Your task to perform on an android device: Clear all items from cart on bestbuy. Search for "bose quietcomfort 35" on bestbuy, select the first entry, add it to the cart, then select checkout. Image 0: 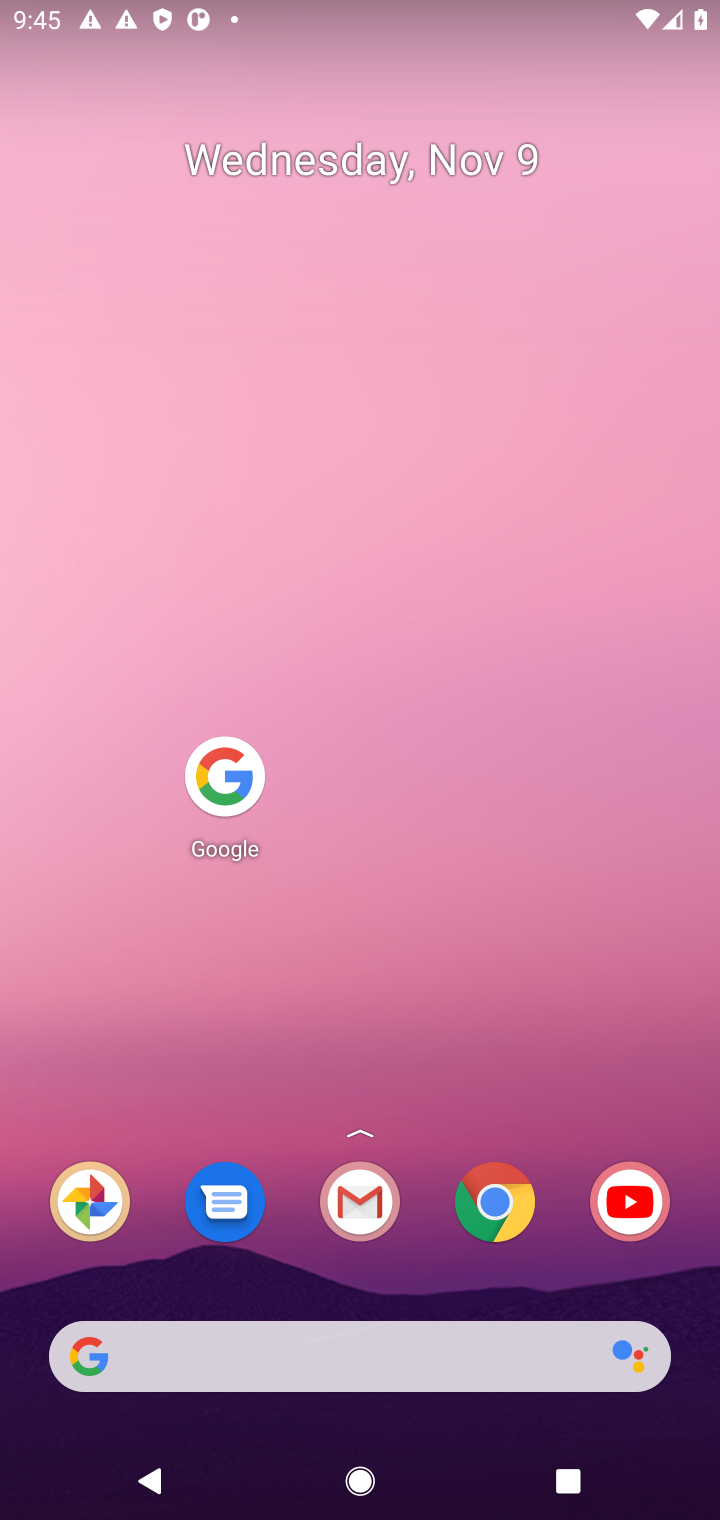
Step 0: click (217, 762)
Your task to perform on an android device: Clear all items from cart on bestbuy. Search for "bose quietcomfort 35" on bestbuy, select the first entry, add it to the cart, then select checkout. Image 1: 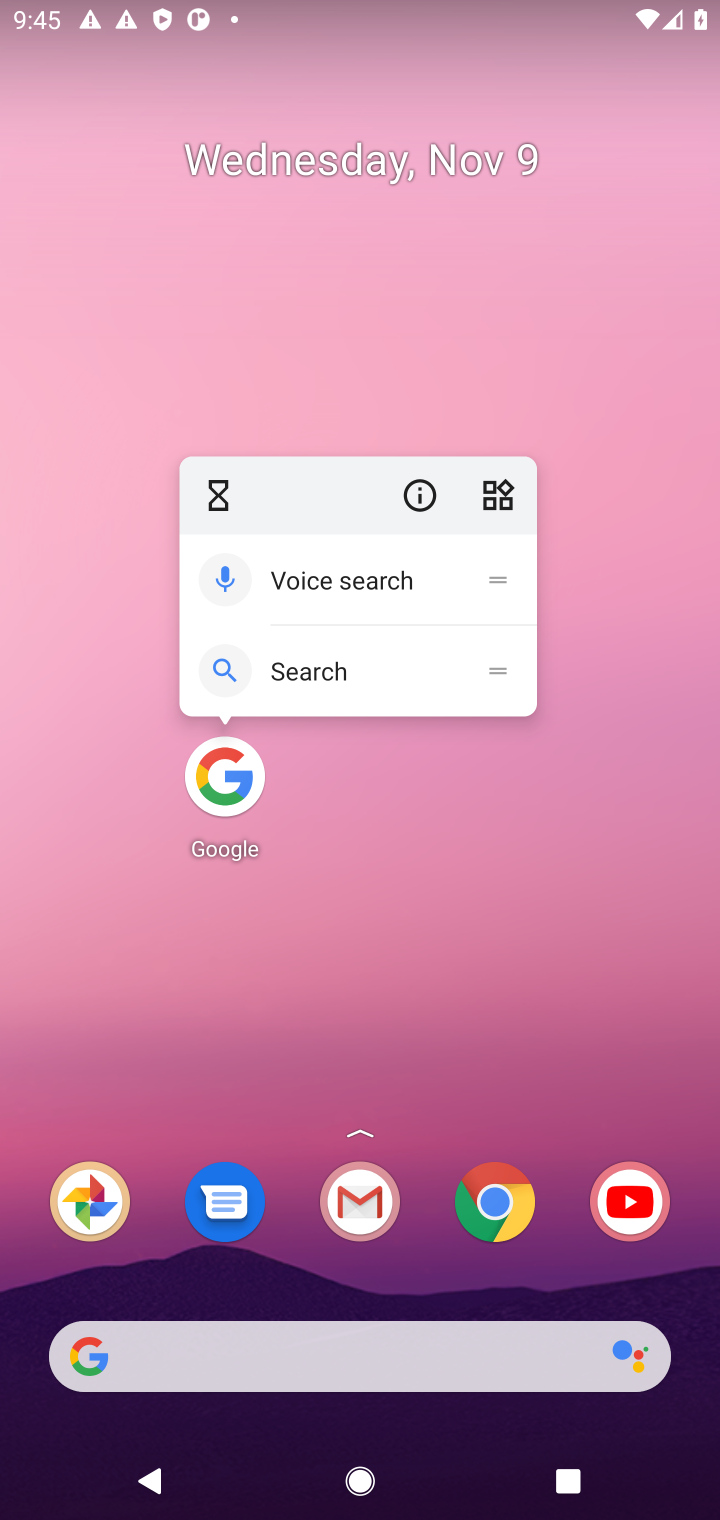
Step 1: click (223, 772)
Your task to perform on an android device: Clear all items from cart on bestbuy. Search for "bose quietcomfort 35" on bestbuy, select the first entry, add it to the cart, then select checkout. Image 2: 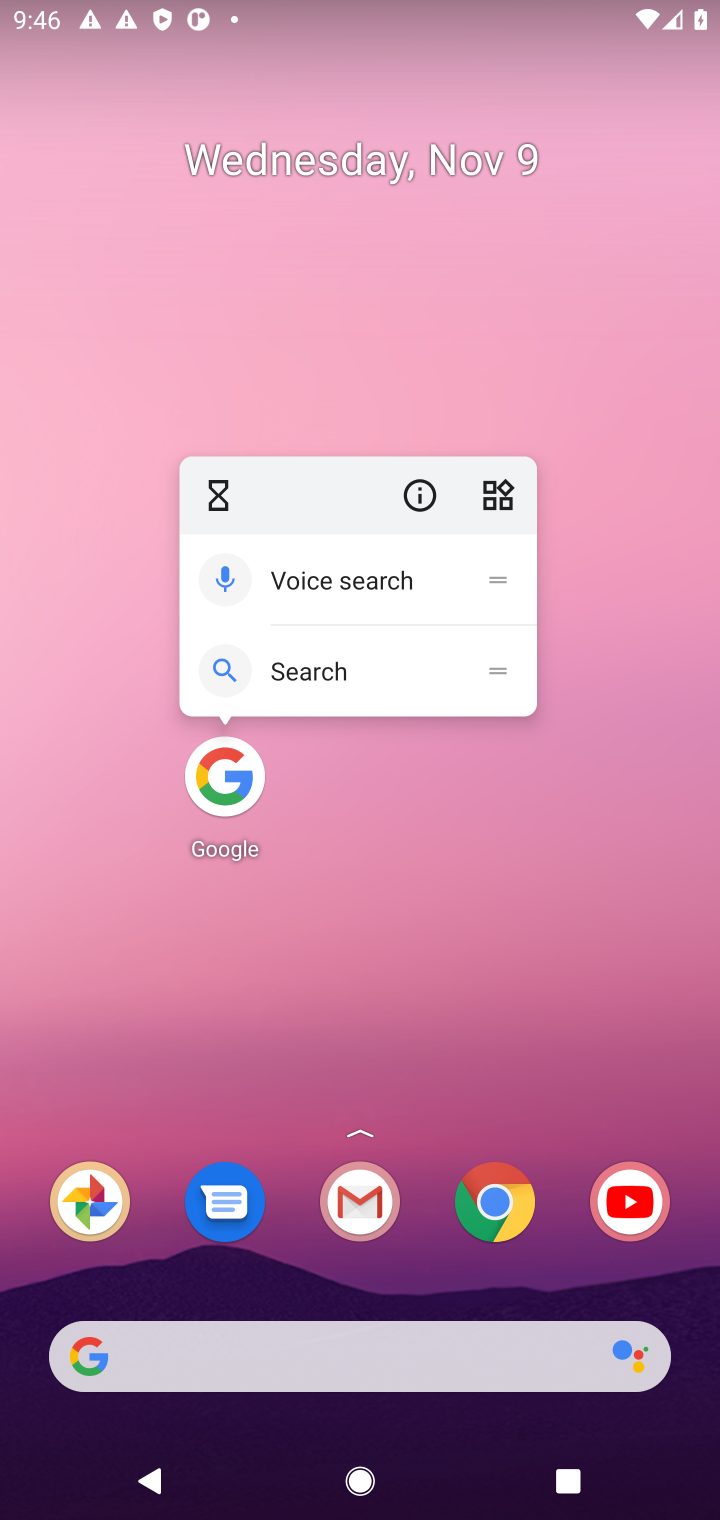
Step 2: click (223, 774)
Your task to perform on an android device: Clear all items from cart on bestbuy. Search for "bose quietcomfort 35" on bestbuy, select the first entry, add it to the cart, then select checkout. Image 3: 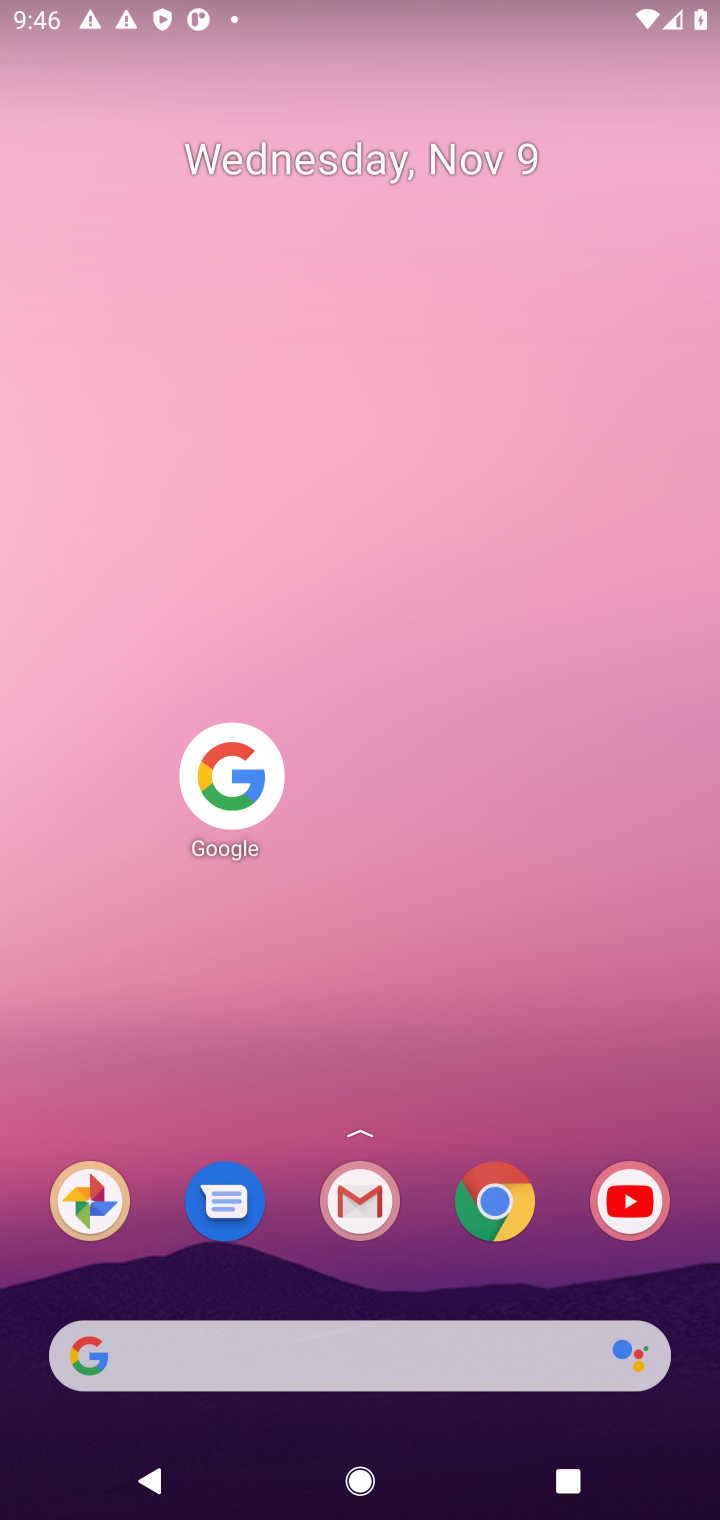
Step 3: click (223, 774)
Your task to perform on an android device: Clear all items from cart on bestbuy. Search for "bose quietcomfort 35" on bestbuy, select the first entry, add it to the cart, then select checkout. Image 4: 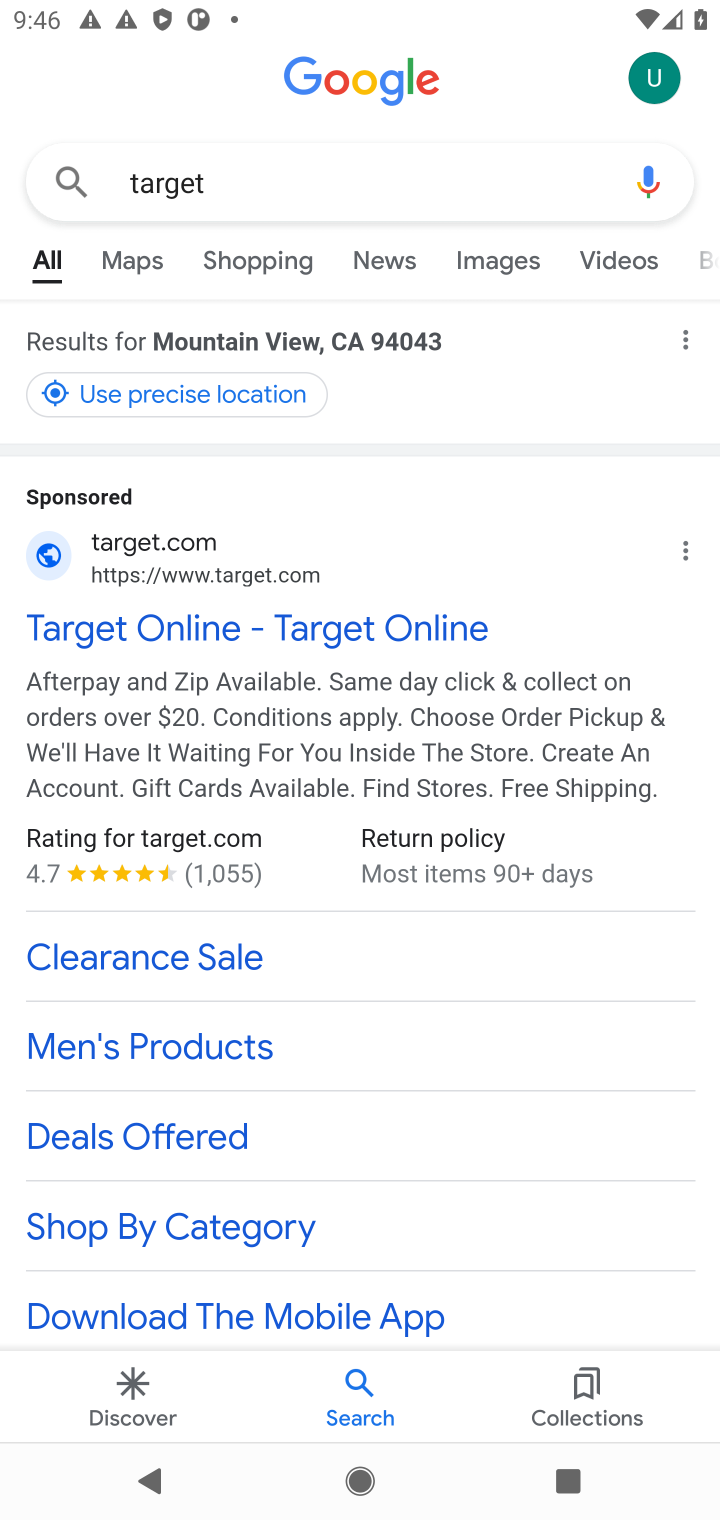
Step 4: click (298, 187)
Your task to perform on an android device: Clear all items from cart on bestbuy. Search for "bose quietcomfort 35" on bestbuy, select the first entry, add it to the cart, then select checkout. Image 5: 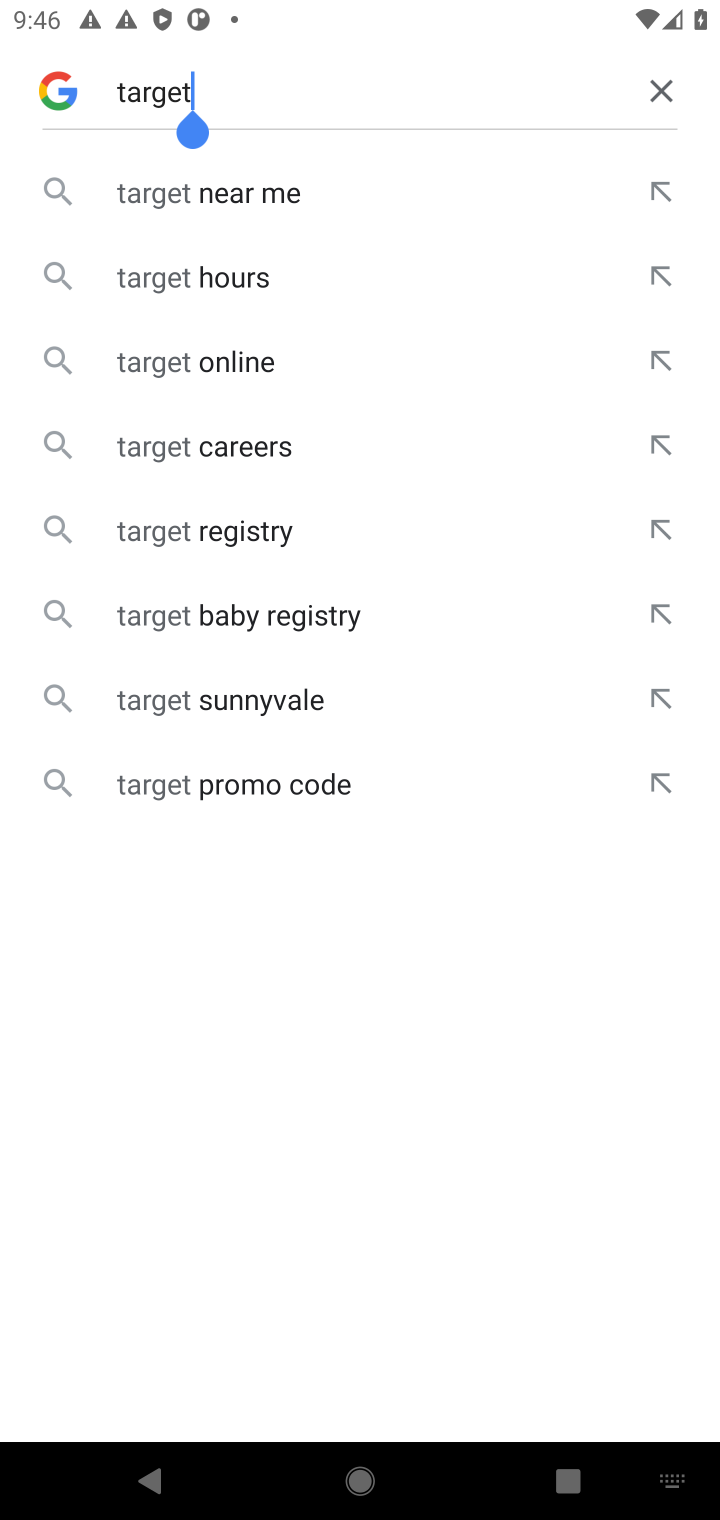
Step 5: click (658, 88)
Your task to perform on an android device: Clear all items from cart on bestbuy. Search for "bose quietcomfort 35" on bestbuy, select the first entry, add it to the cart, then select checkout. Image 6: 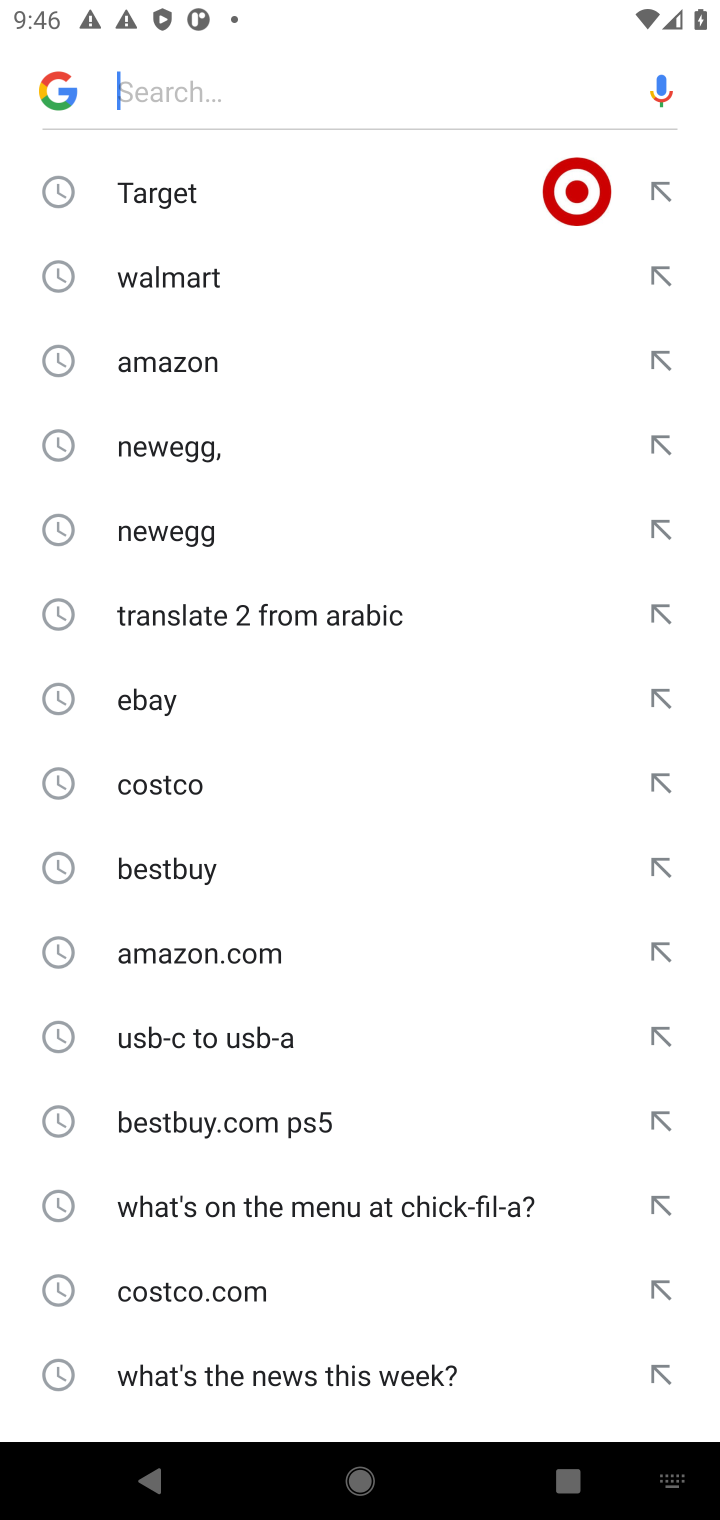
Step 6: click (168, 856)
Your task to perform on an android device: Clear all items from cart on bestbuy. Search for "bose quietcomfort 35" on bestbuy, select the first entry, add it to the cart, then select checkout. Image 7: 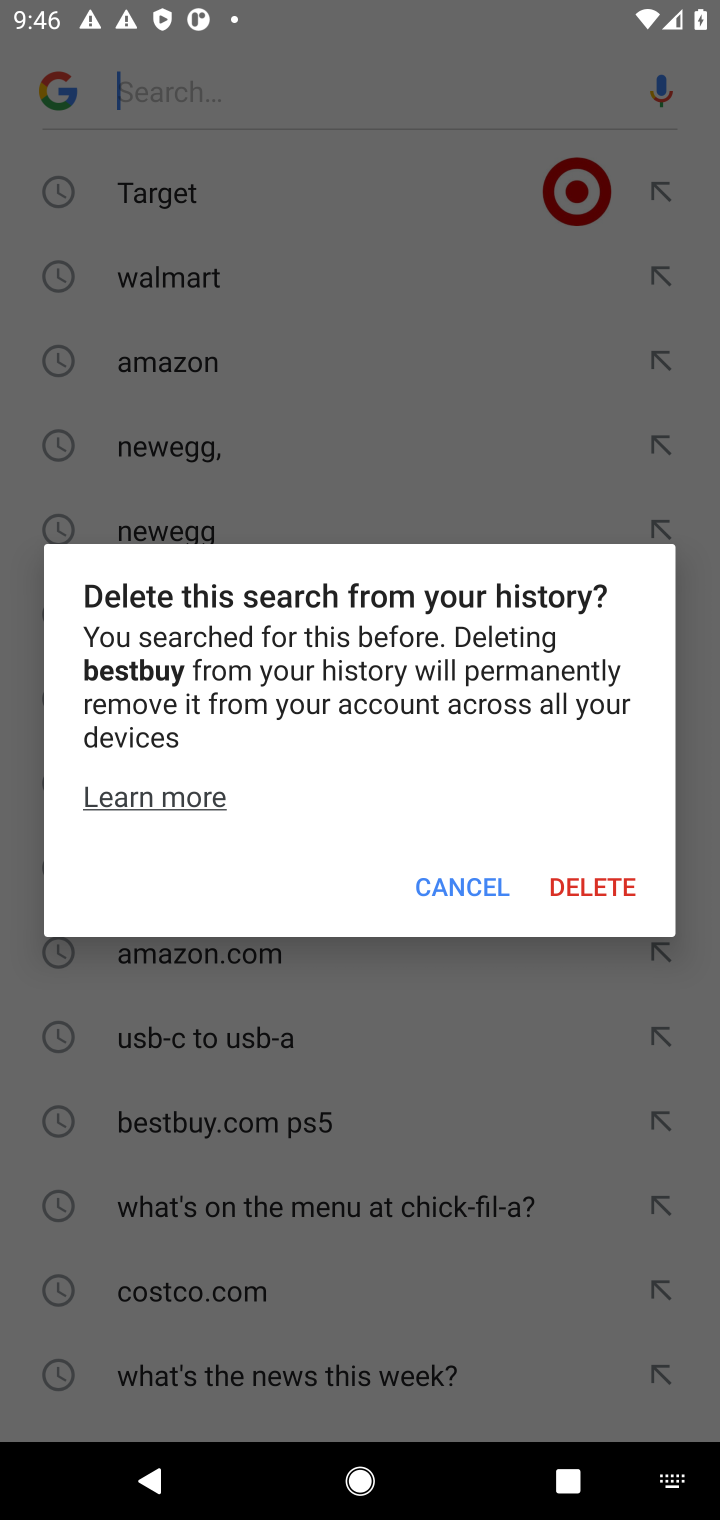
Step 7: click (450, 875)
Your task to perform on an android device: Clear all items from cart on bestbuy. Search for "bose quietcomfort 35" on bestbuy, select the first entry, add it to the cart, then select checkout. Image 8: 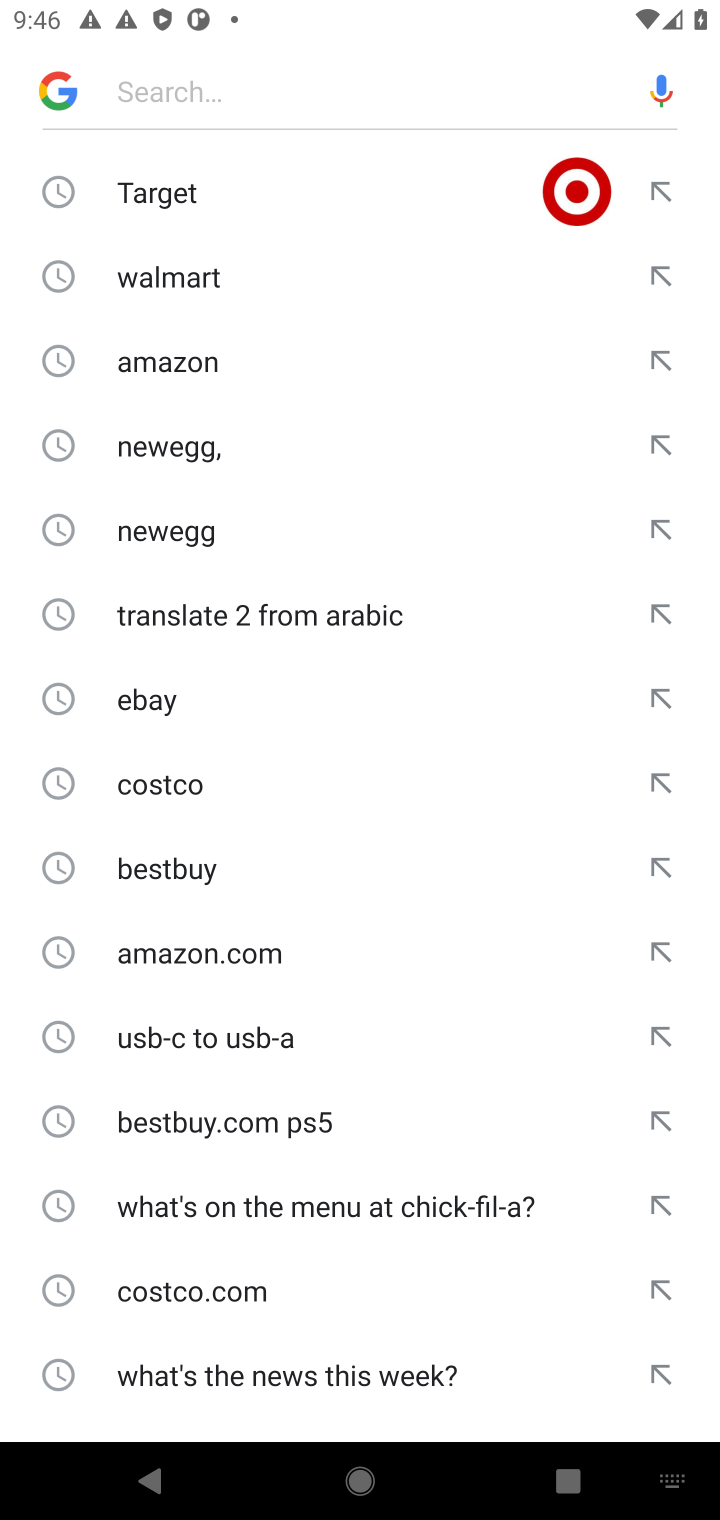
Step 8: click (151, 868)
Your task to perform on an android device: Clear all items from cart on bestbuy. Search for "bose quietcomfort 35" on bestbuy, select the first entry, add it to the cart, then select checkout. Image 9: 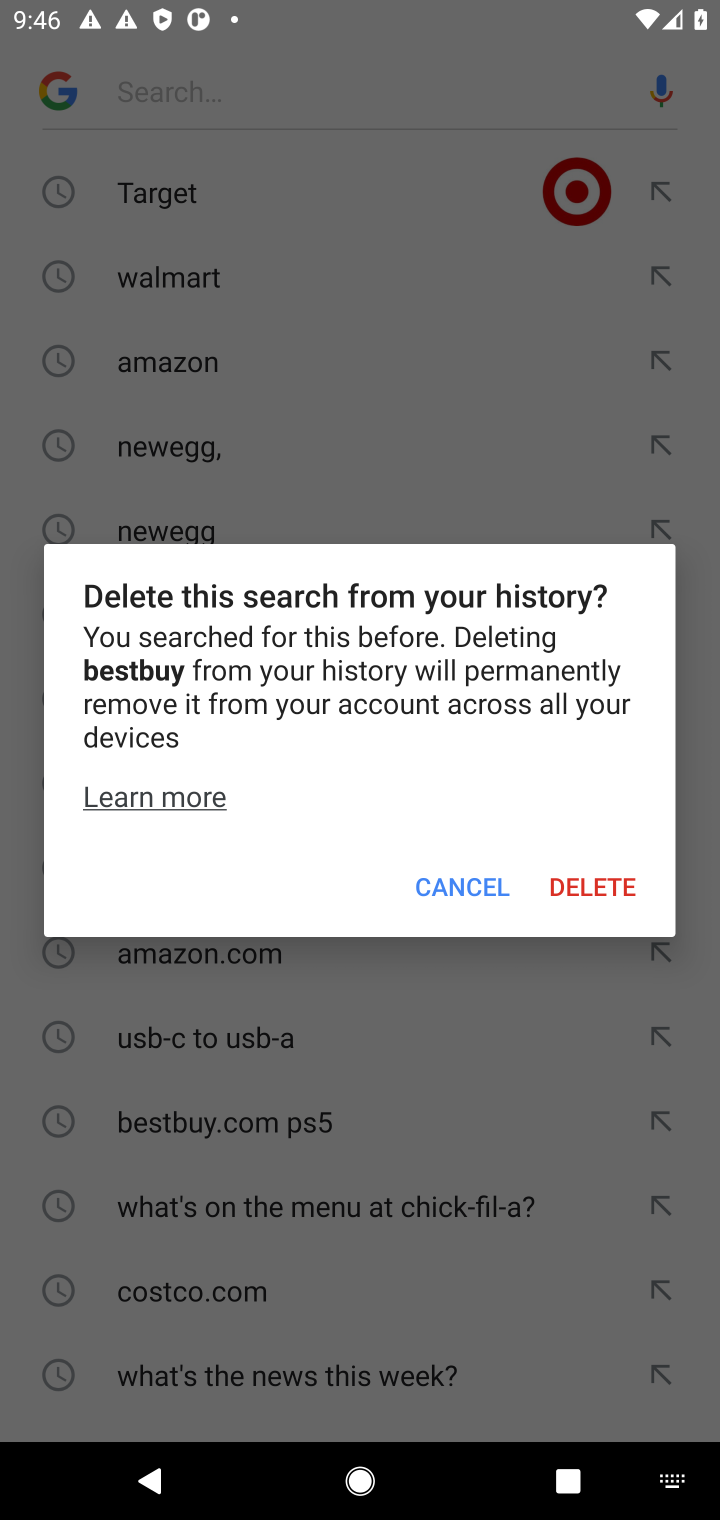
Step 9: click (424, 896)
Your task to perform on an android device: Clear all items from cart on bestbuy. Search for "bose quietcomfort 35" on bestbuy, select the first entry, add it to the cart, then select checkout. Image 10: 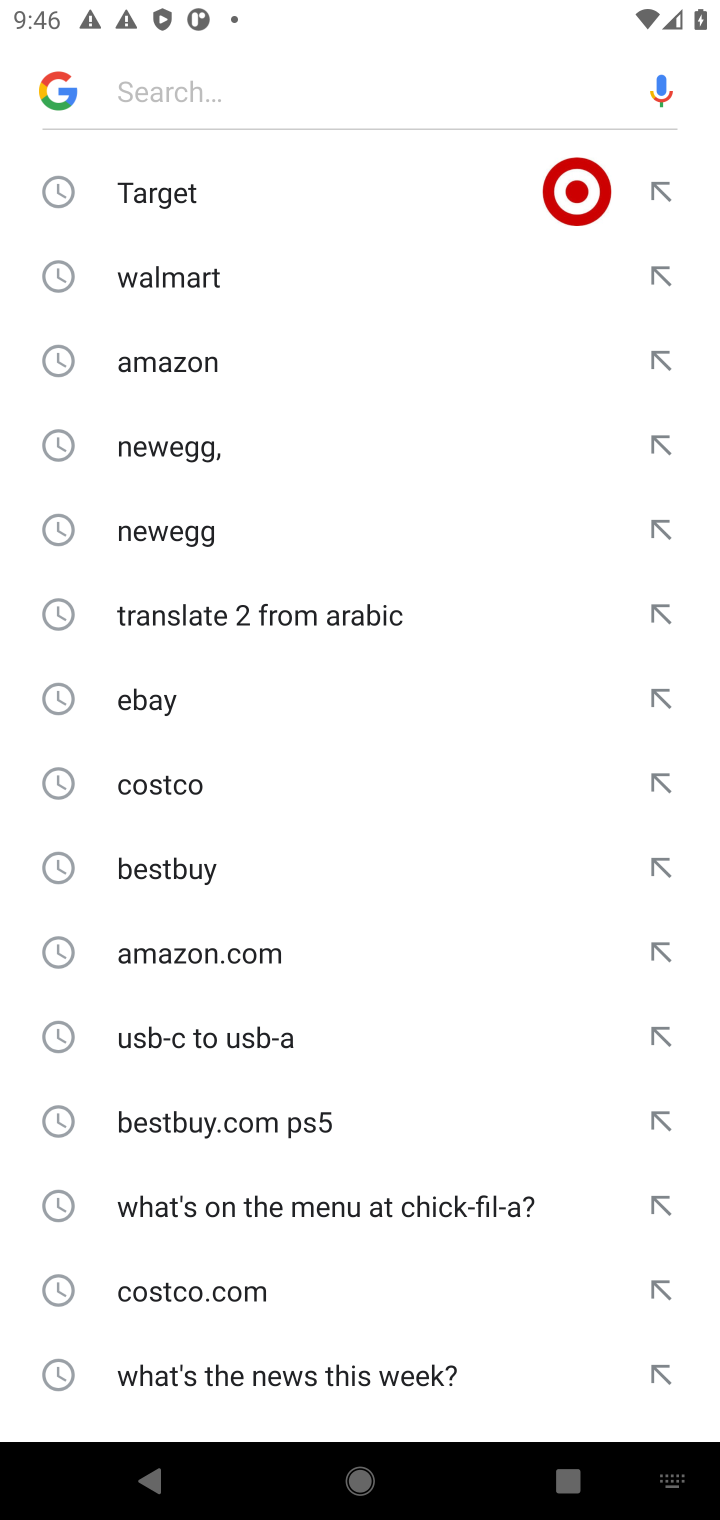
Step 10: click (115, 858)
Your task to perform on an android device: Clear all items from cart on bestbuy. Search for "bose quietcomfort 35" on bestbuy, select the first entry, add it to the cart, then select checkout. Image 11: 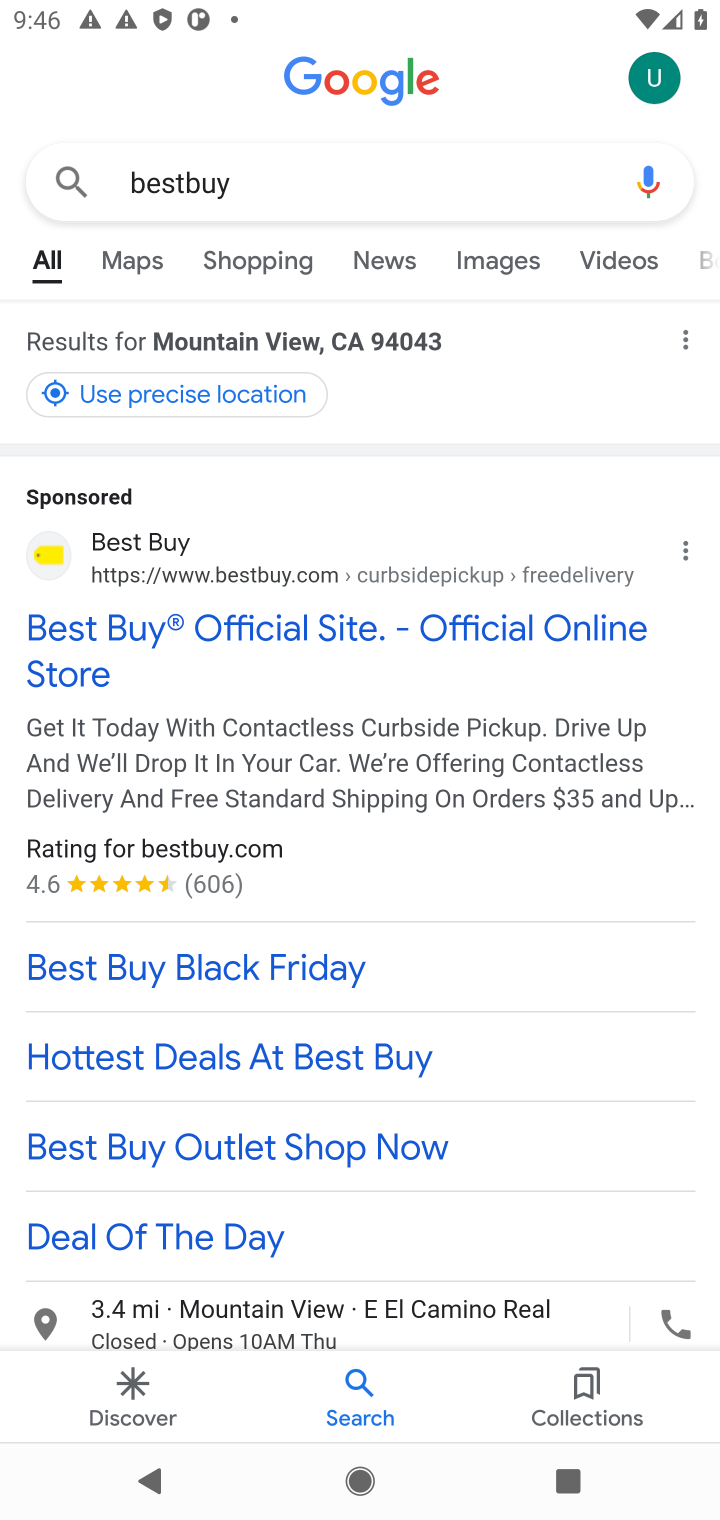
Step 11: click (232, 627)
Your task to perform on an android device: Clear all items from cart on bestbuy. Search for "bose quietcomfort 35" on bestbuy, select the first entry, add it to the cart, then select checkout. Image 12: 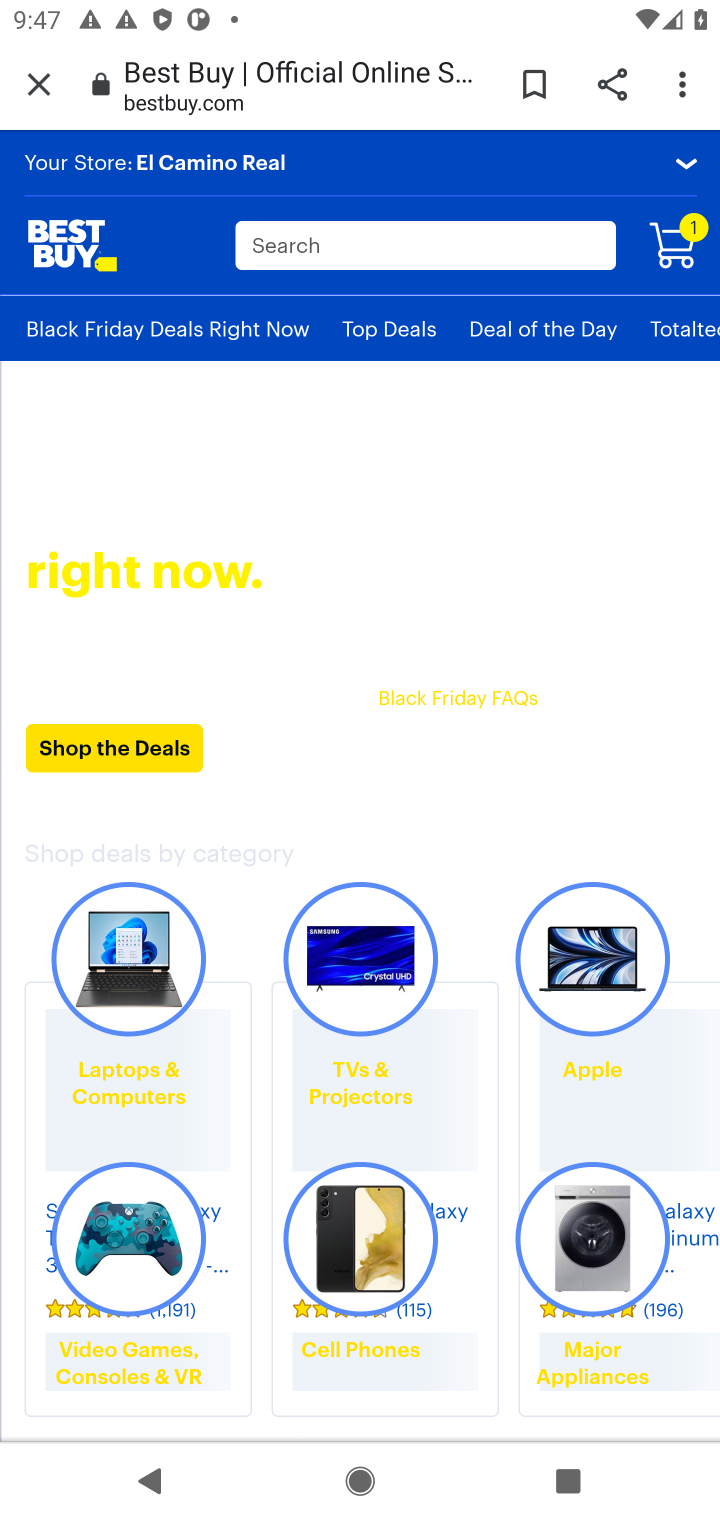
Step 12: click (437, 245)
Your task to perform on an android device: Clear all items from cart on bestbuy. Search for "bose quietcomfort 35" on bestbuy, select the first entry, add it to the cart, then select checkout. Image 13: 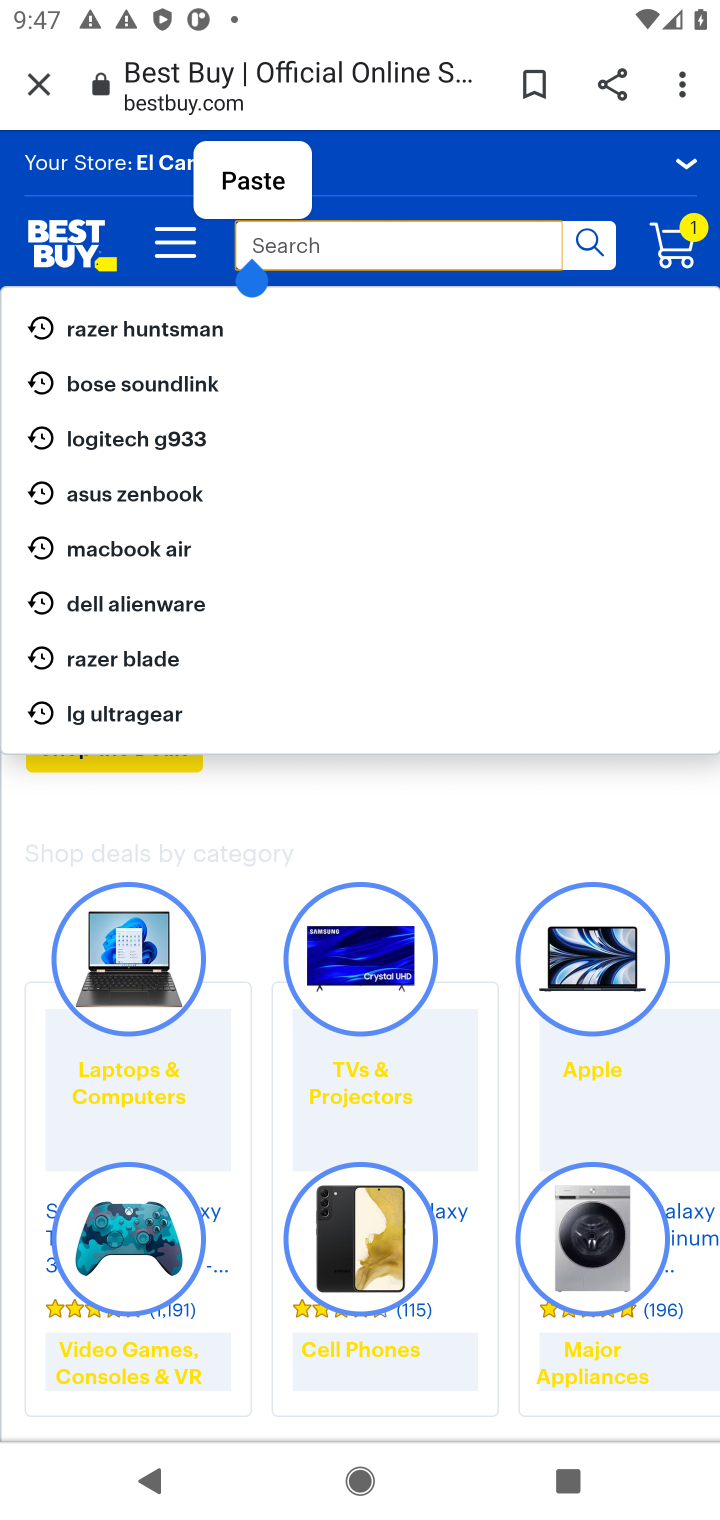
Step 13: click (437, 243)
Your task to perform on an android device: Clear all items from cart on bestbuy. Search for "bose quietcomfort 35" on bestbuy, select the first entry, add it to the cart, then select checkout. Image 14: 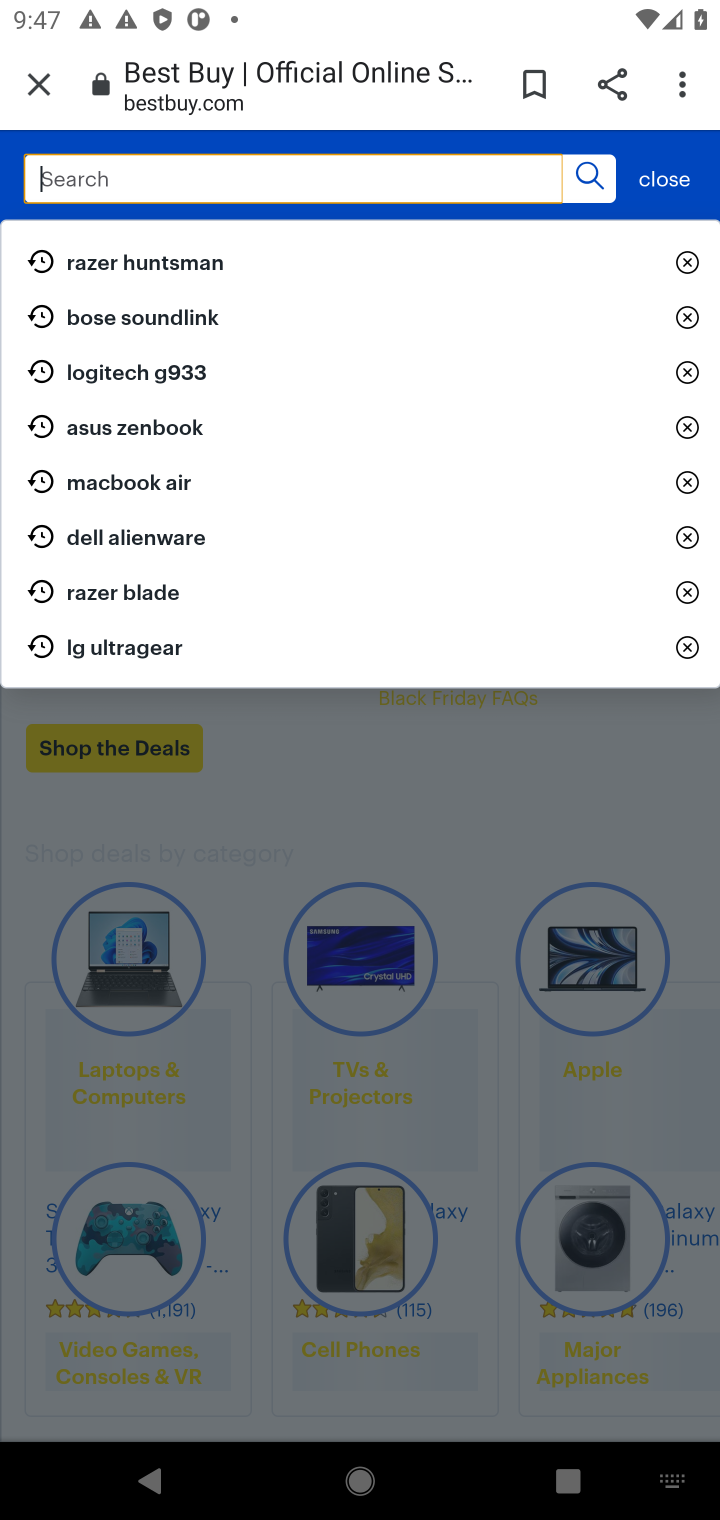
Step 14: type "bose quietcomfort 35"
Your task to perform on an android device: Clear all items from cart on bestbuy. Search for "bose quietcomfort 35" on bestbuy, select the first entry, add it to the cart, then select checkout. Image 15: 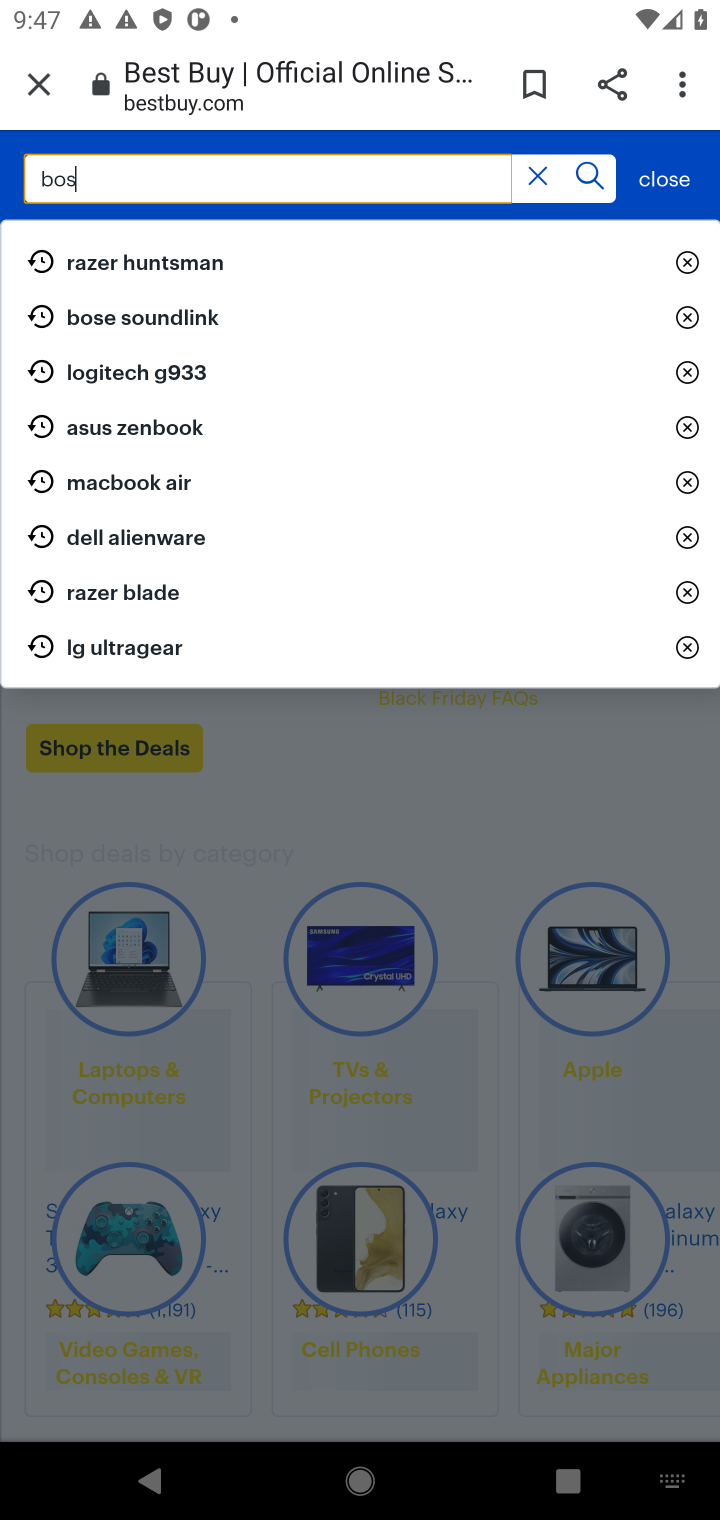
Step 15: press enter
Your task to perform on an android device: Clear all items from cart on bestbuy. Search for "bose quietcomfort 35" on bestbuy, select the first entry, add it to the cart, then select checkout. Image 16: 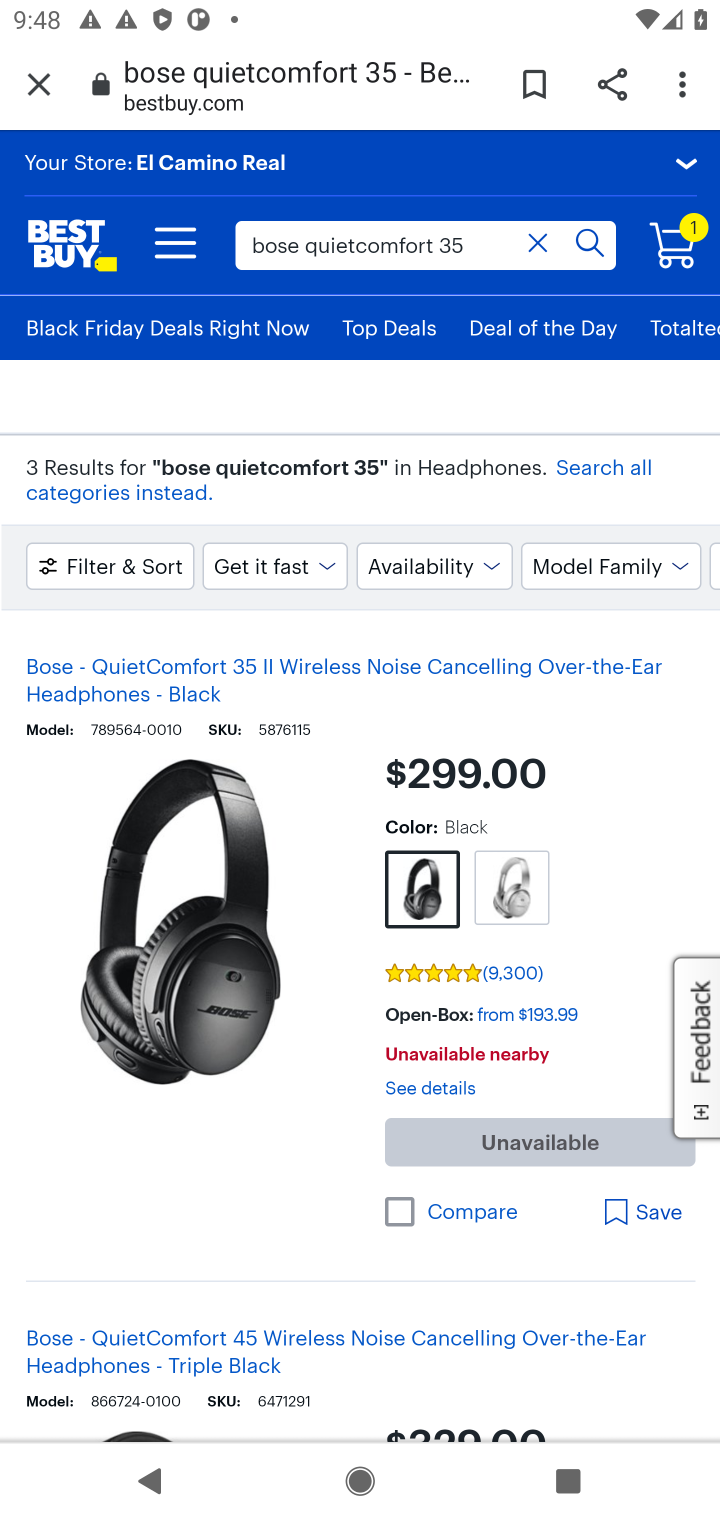
Step 16: task complete